Your task to perform on an android device: empty trash in the gmail app Image 0: 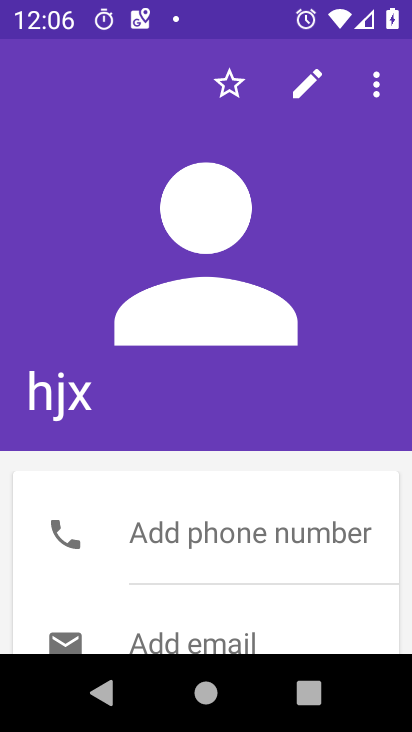
Step 0: press home button
Your task to perform on an android device: empty trash in the gmail app Image 1: 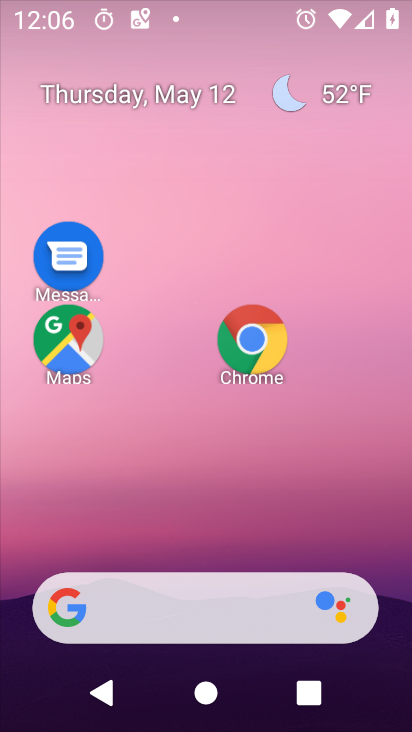
Step 1: drag from (194, 526) to (173, 23)
Your task to perform on an android device: empty trash in the gmail app Image 2: 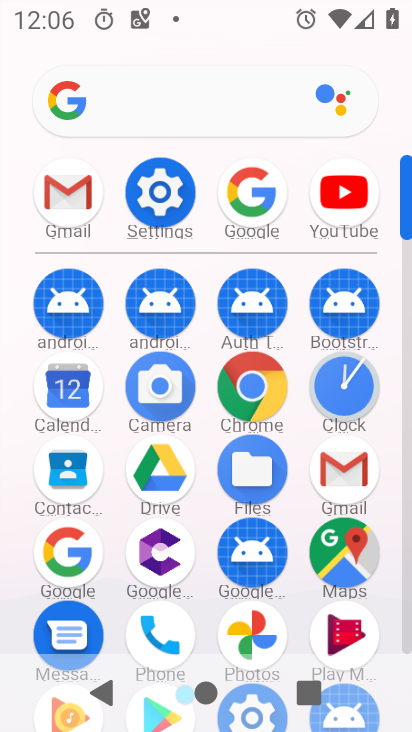
Step 2: click (69, 191)
Your task to perform on an android device: empty trash in the gmail app Image 3: 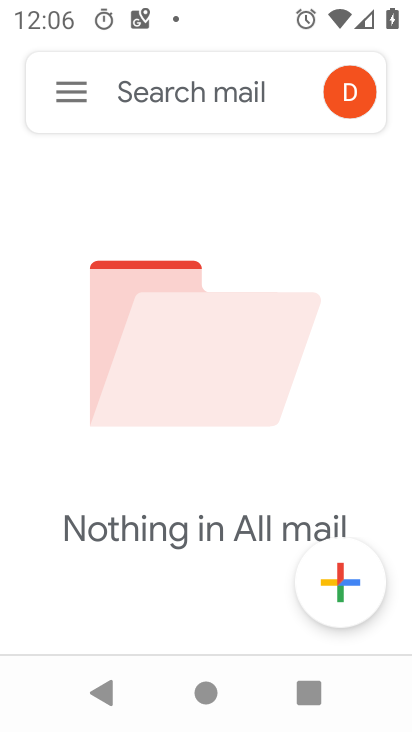
Step 3: click (60, 85)
Your task to perform on an android device: empty trash in the gmail app Image 4: 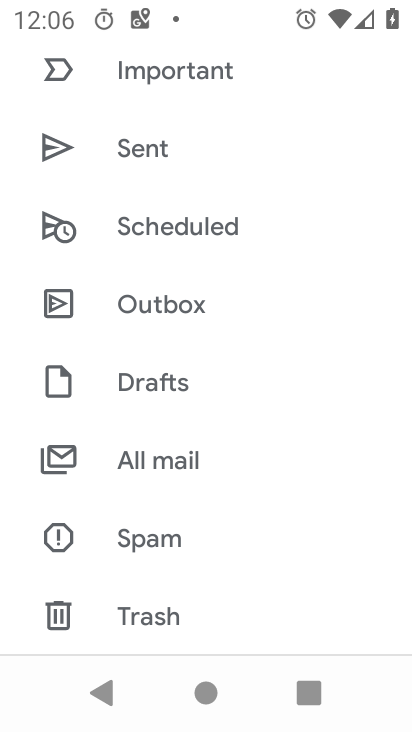
Step 4: click (177, 626)
Your task to perform on an android device: empty trash in the gmail app Image 5: 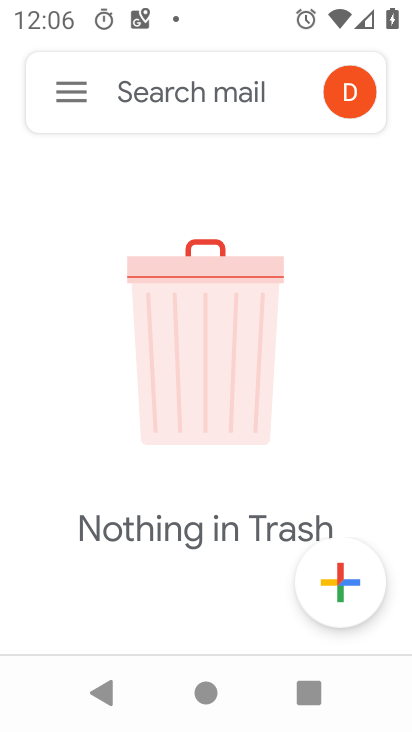
Step 5: task complete